Your task to perform on an android device: Check the news Image 0: 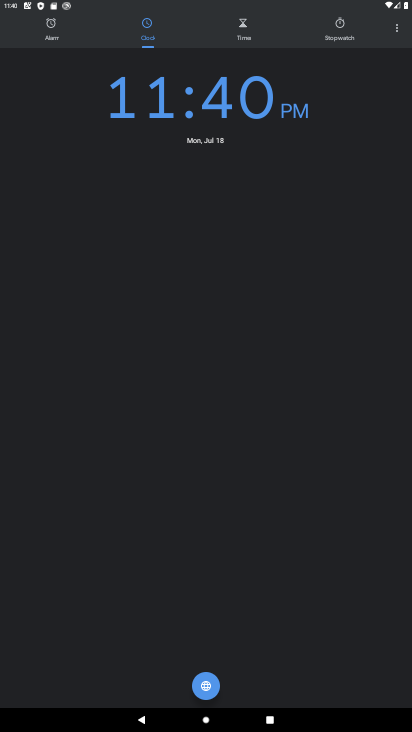
Step 0: press home button
Your task to perform on an android device: Check the news Image 1: 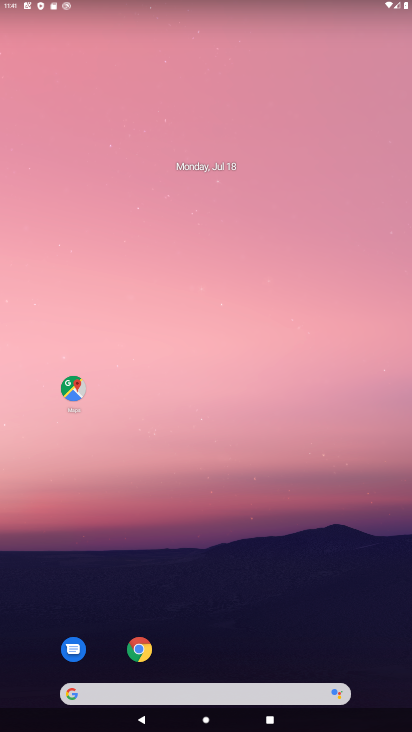
Step 1: task complete